Your task to perform on an android device: Open Youtube and go to the subscriptions tab Image 0: 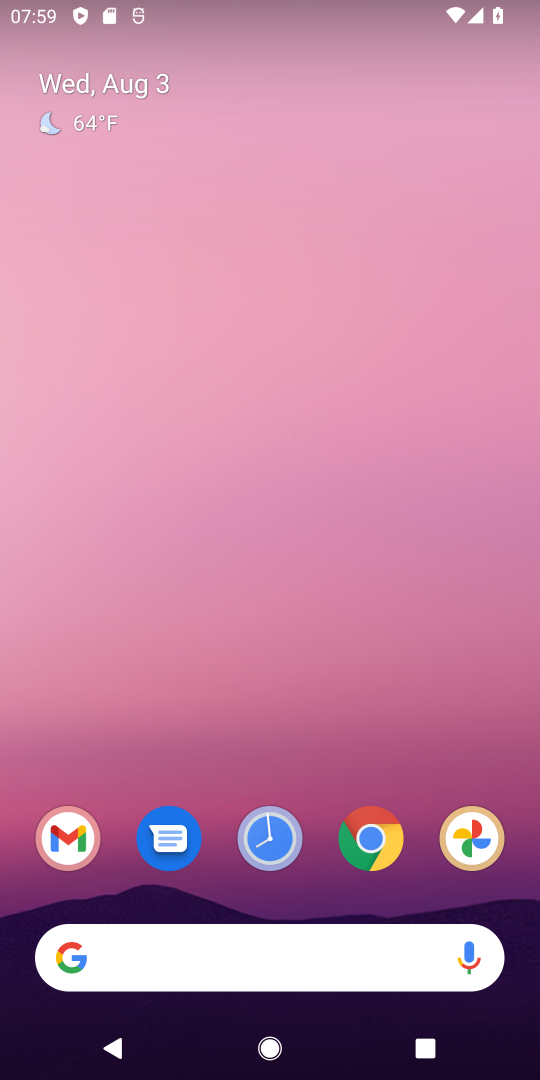
Step 0: drag from (216, 799) to (166, 91)
Your task to perform on an android device: Open Youtube and go to the subscriptions tab Image 1: 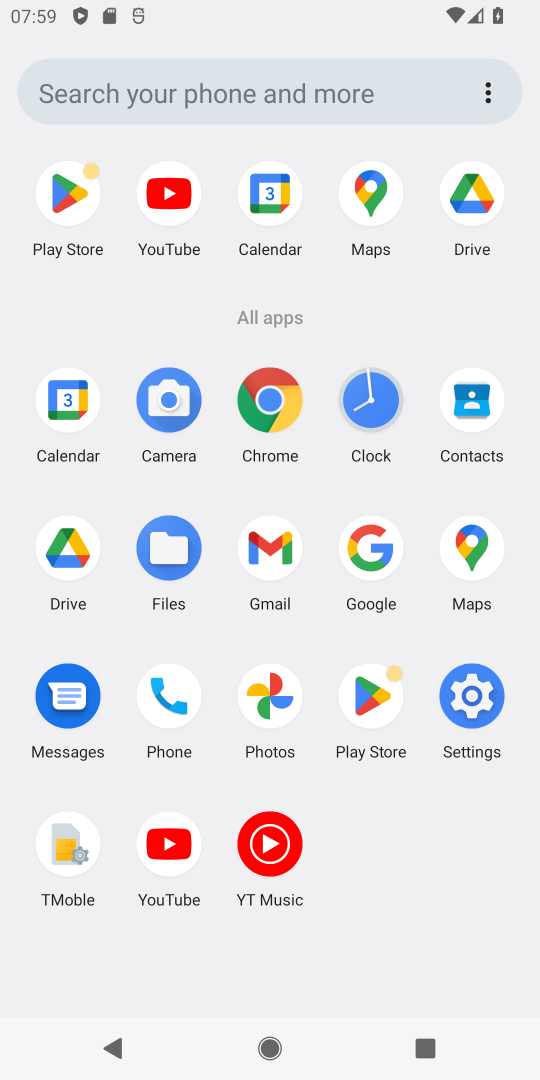
Step 1: click (161, 214)
Your task to perform on an android device: Open Youtube and go to the subscriptions tab Image 2: 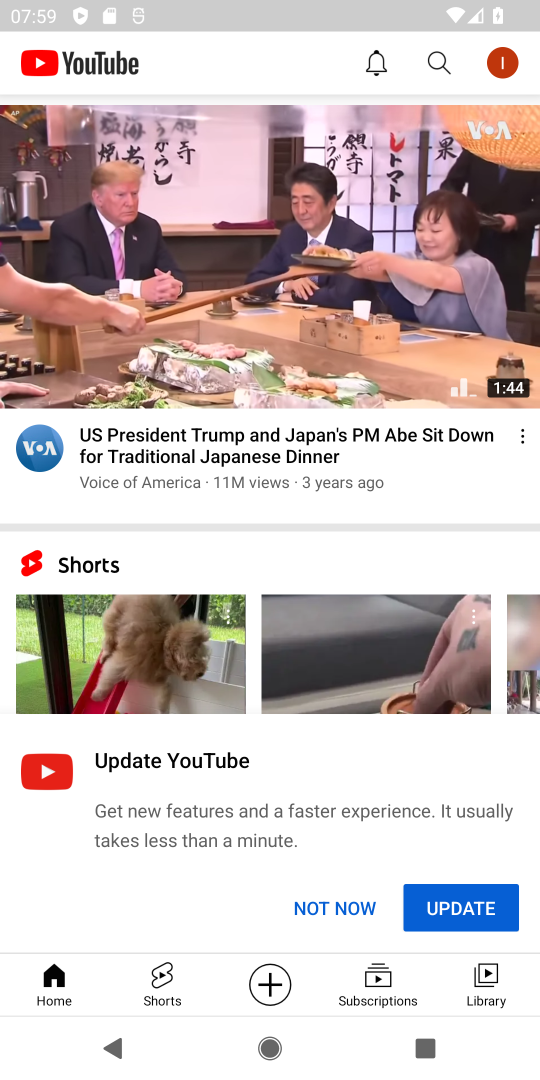
Step 2: task complete